Your task to perform on an android device: check out phone information Image 0: 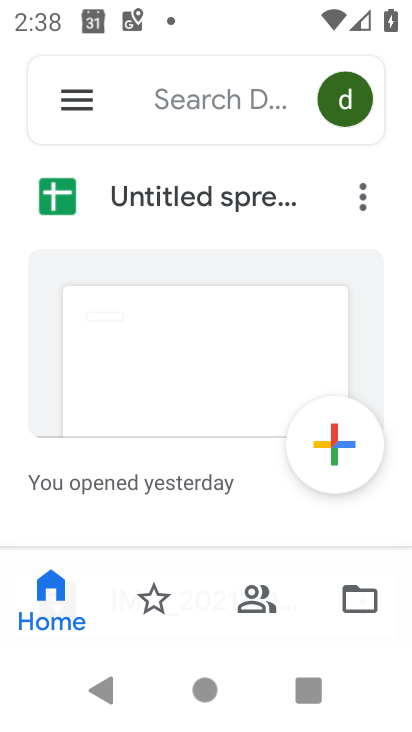
Step 0: press home button
Your task to perform on an android device: check out phone information Image 1: 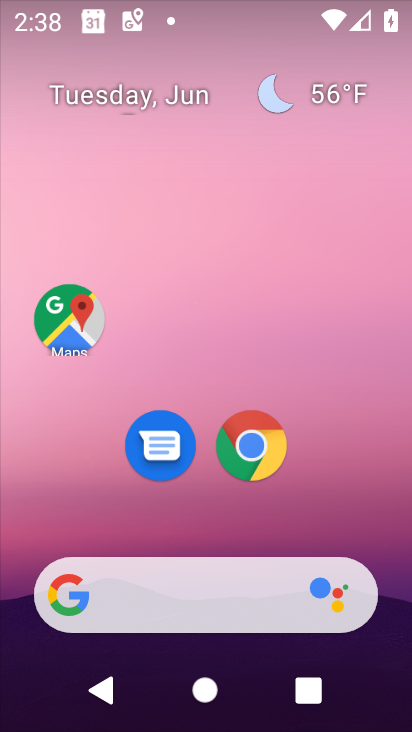
Step 1: drag from (238, 675) to (243, 0)
Your task to perform on an android device: check out phone information Image 2: 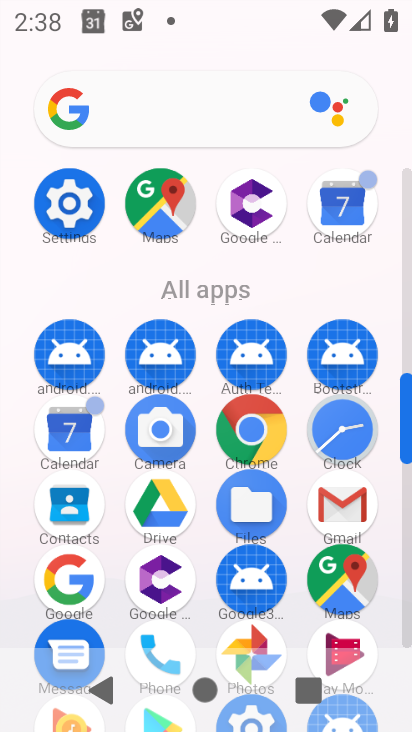
Step 2: click (69, 215)
Your task to perform on an android device: check out phone information Image 3: 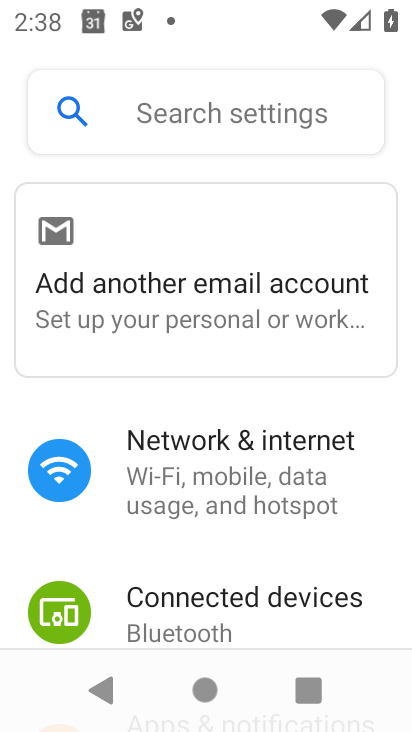
Step 3: drag from (271, 575) to (193, 6)
Your task to perform on an android device: check out phone information Image 4: 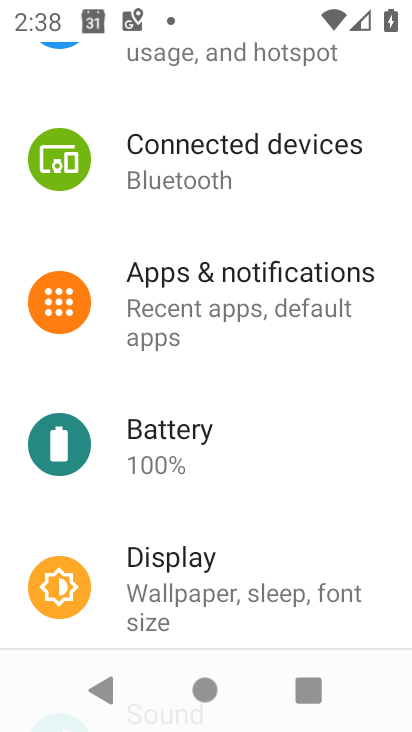
Step 4: drag from (229, 465) to (263, 0)
Your task to perform on an android device: check out phone information Image 5: 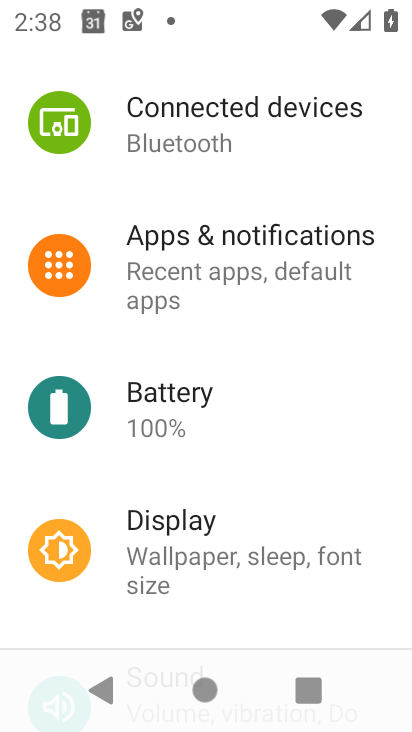
Step 5: drag from (265, 620) to (263, 24)
Your task to perform on an android device: check out phone information Image 6: 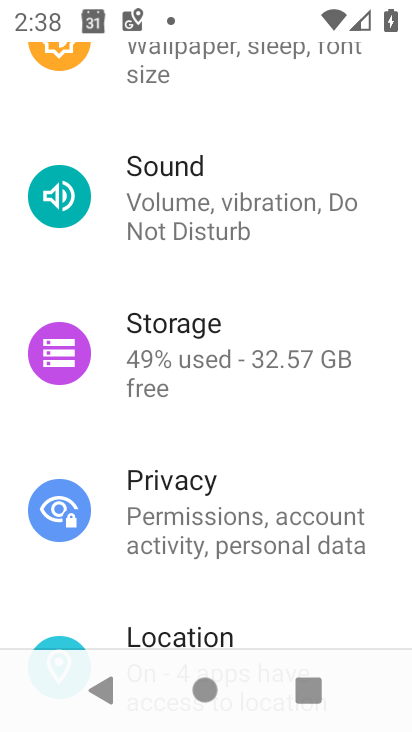
Step 6: drag from (288, 521) to (224, 27)
Your task to perform on an android device: check out phone information Image 7: 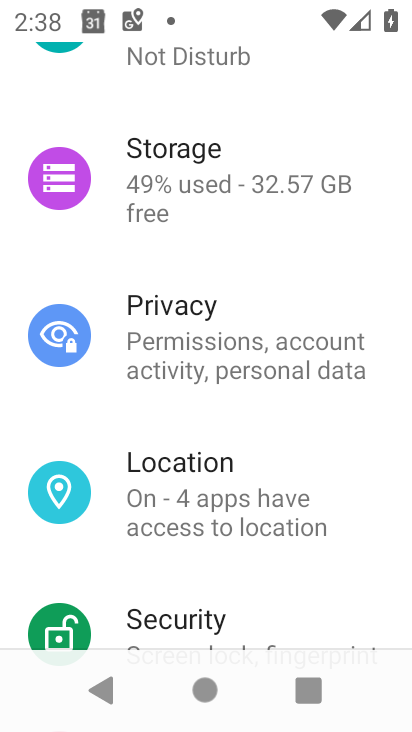
Step 7: drag from (255, 551) to (294, 36)
Your task to perform on an android device: check out phone information Image 8: 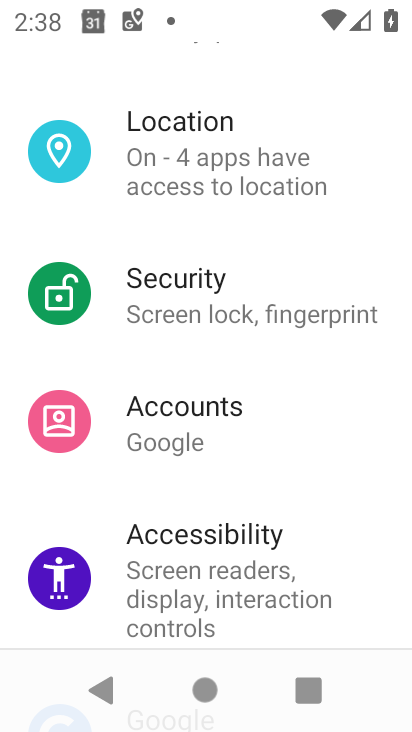
Step 8: drag from (269, 606) to (202, 24)
Your task to perform on an android device: check out phone information Image 9: 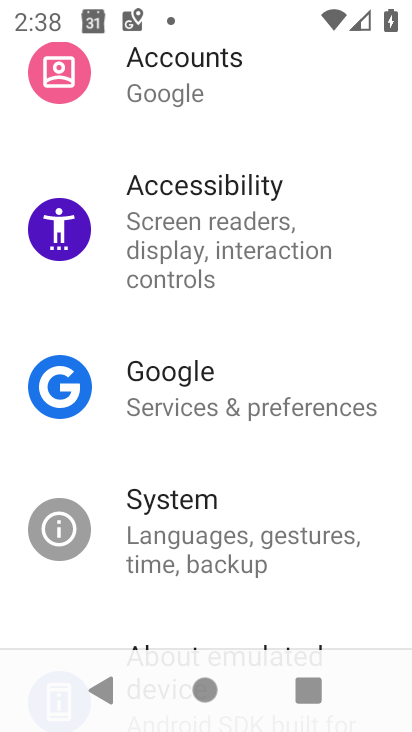
Step 9: drag from (299, 618) to (221, 57)
Your task to perform on an android device: check out phone information Image 10: 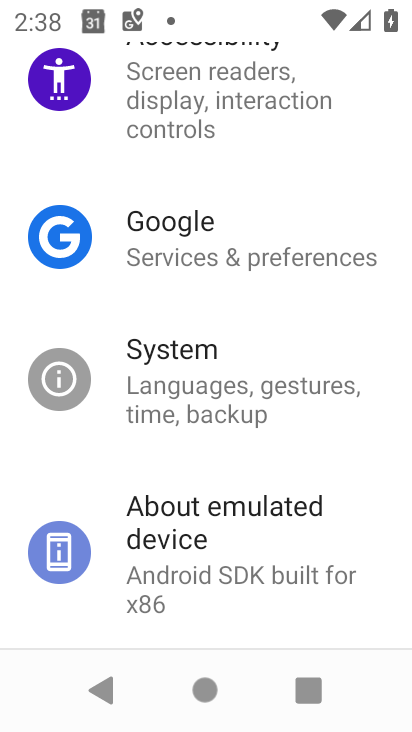
Step 10: click (281, 568)
Your task to perform on an android device: check out phone information Image 11: 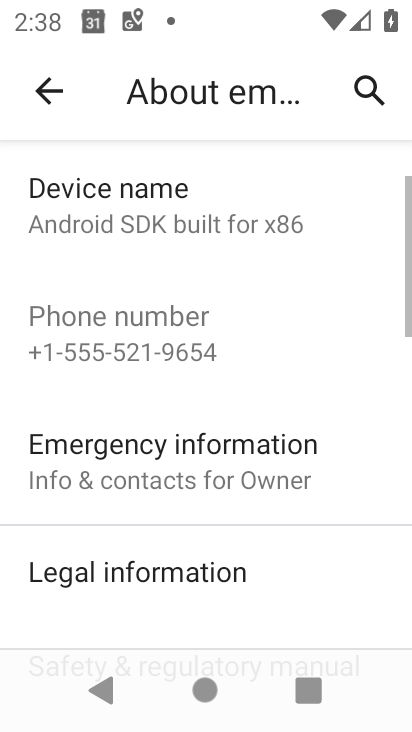
Step 11: task complete